Your task to perform on an android device: Show me the alarms in the clock app Image 0: 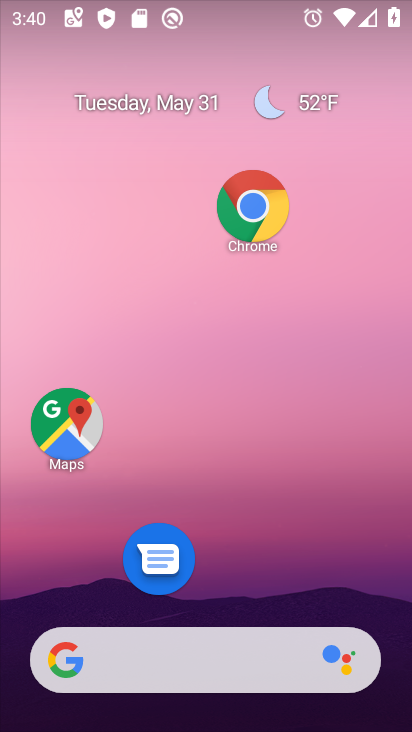
Step 0: drag from (218, 583) to (175, 150)
Your task to perform on an android device: Show me the alarms in the clock app Image 1: 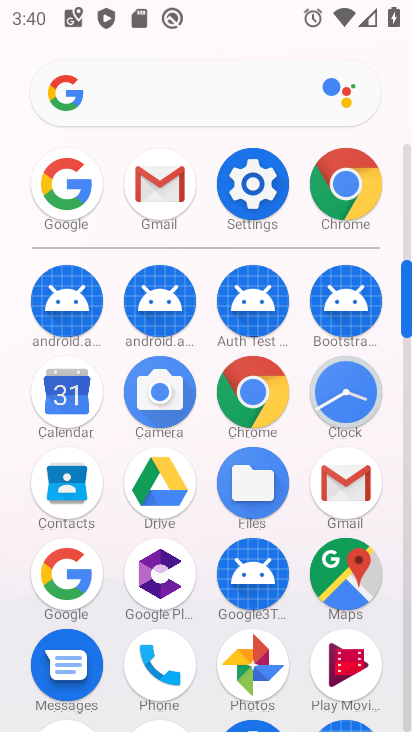
Step 1: click (334, 399)
Your task to perform on an android device: Show me the alarms in the clock app Image 2: 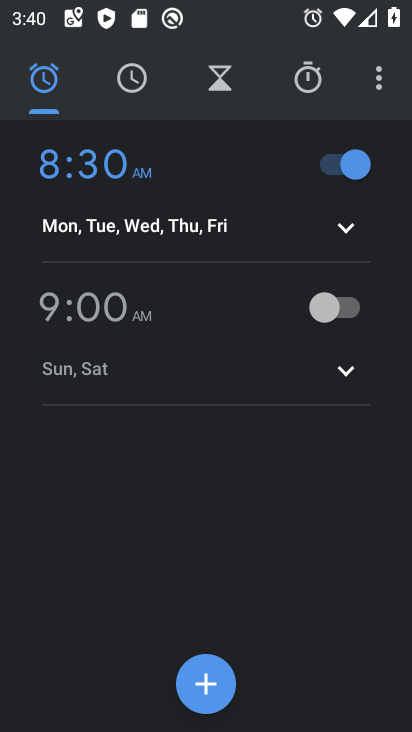
Step 2: click (63, 82)
Your task to perform on an android device: Show me the alarms in the clock app Image 3: 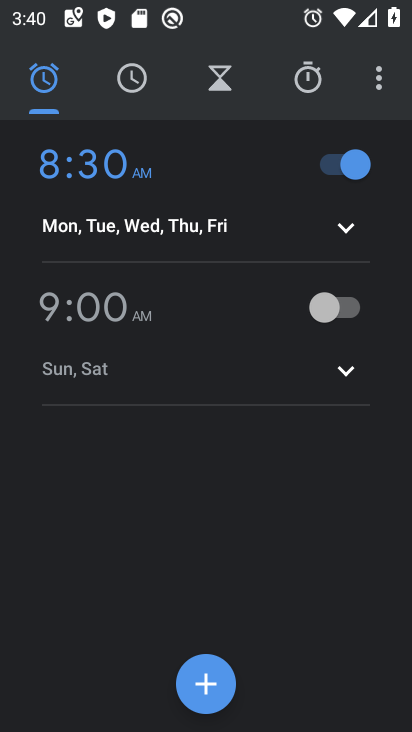
Step 3: task complete